Your task to perform on an android device: check storage Image 0: 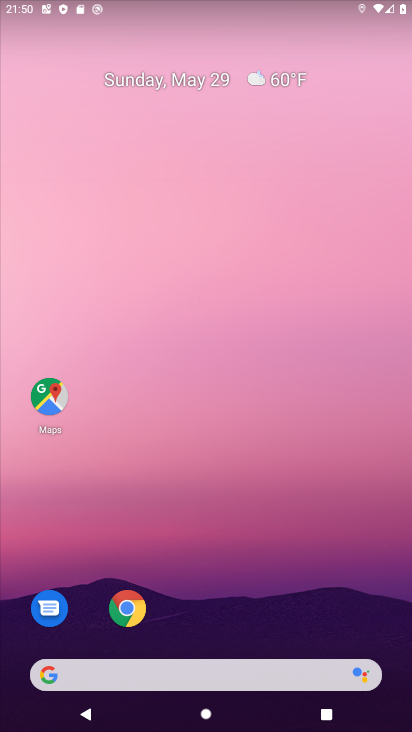
Step 0: drag from (359, 637) to (361, 118)
Your task to perform on an android device: check storage Image 1: 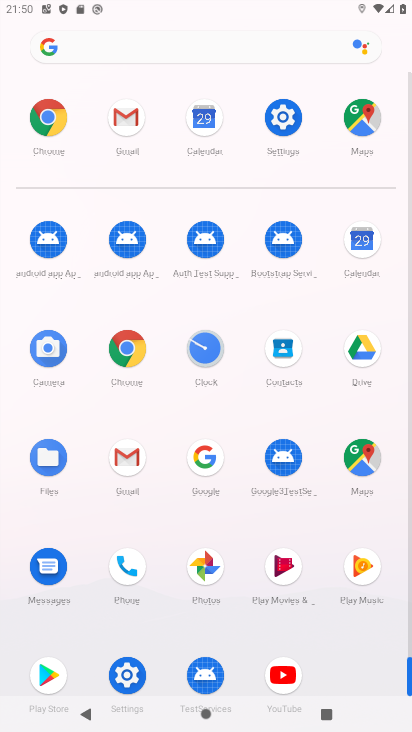
Step 1: click (278, 130)
Your task to perform on an android device: check storage Image 2: 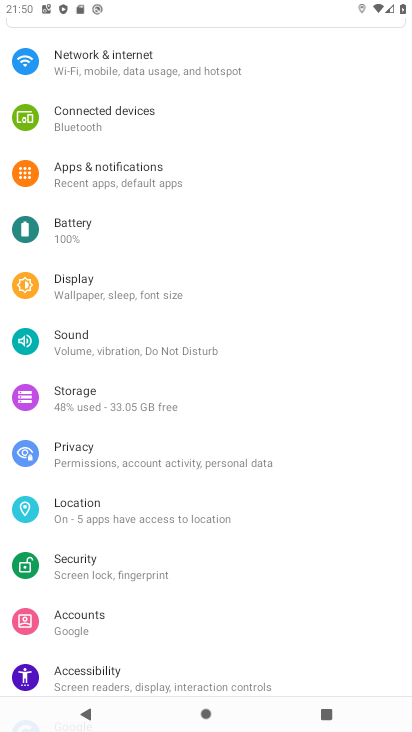
Step 2: drag from (318, 229) to (324, 340)
Your task to perform on an android device: check storage Image 3: 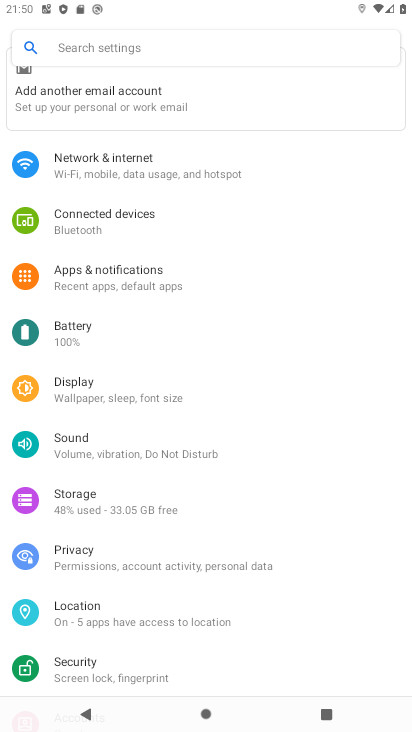
Step 3: drag from (310, 234) to (311, 287)
Your task to perform on an android device: check storage Image 4: 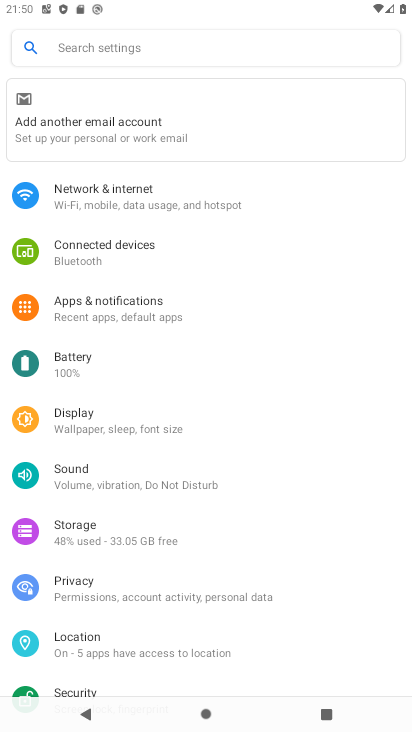
Step 4: drag from (313, 230) to (323, 409)
Your task to perform on an android device: check storage Image 5: 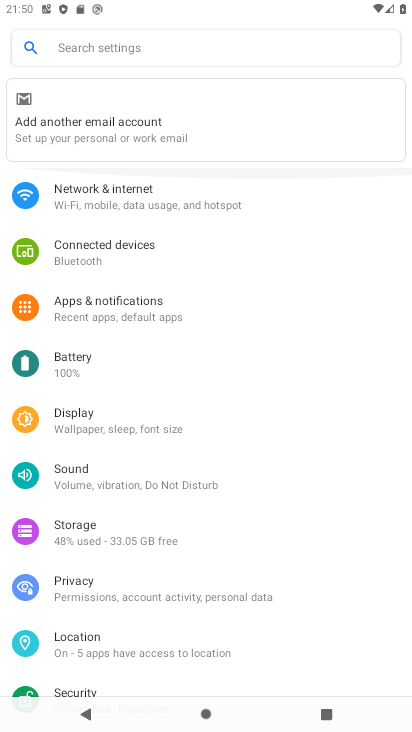
Step 5: drag from (367, 524) to (370, 441)
Your task to perform on an android device: check storage Image 6: 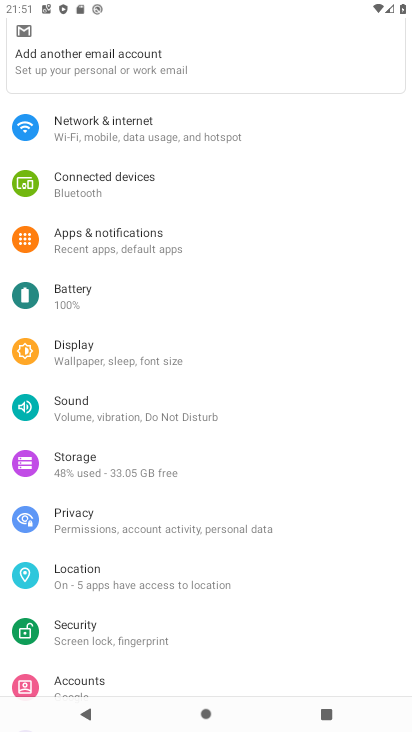
Step 6: drag from (324, 403) to (331, 285)
Your task to perform on an android device: check storage Image 7: 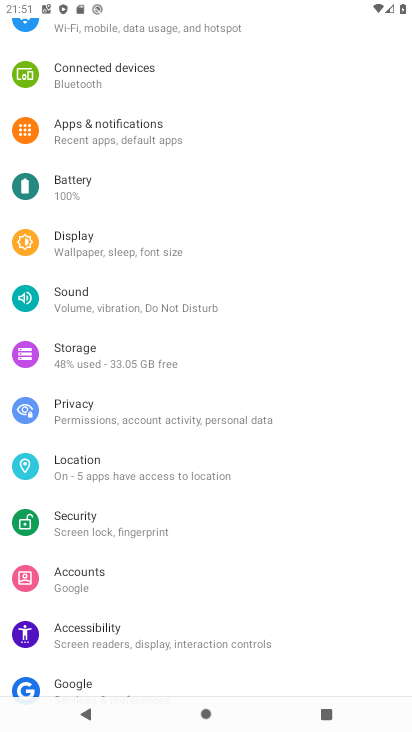
Step 7: drag from (330, 560) to (343, 424)
Your task to perform on an android device: check storage Image 8: 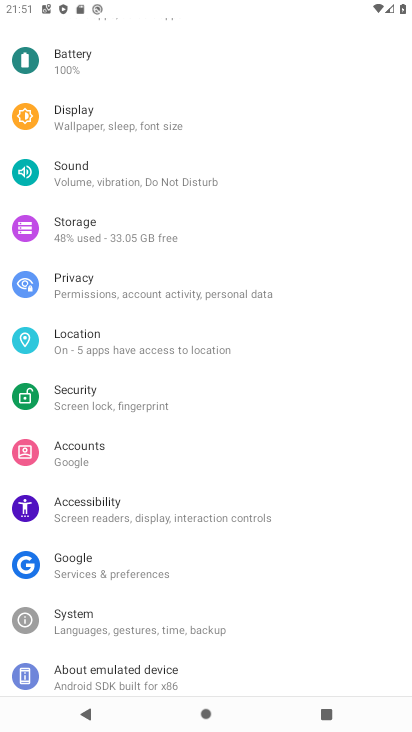
Step 8: drag from (325, 539) to (329, 410)
Your task to perform on an android device: check storage Image 9: 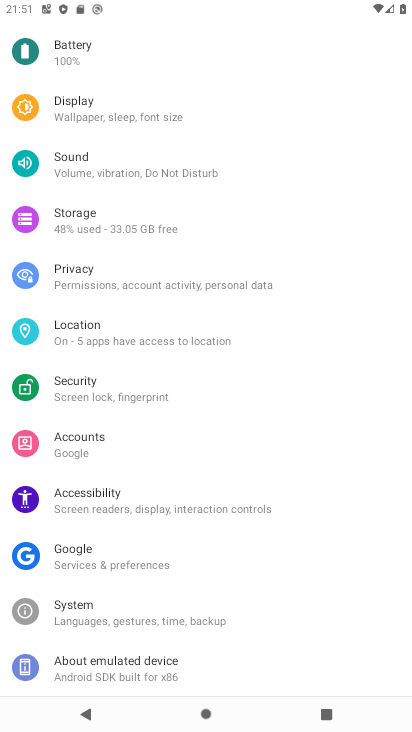
Step 9: drag from (323, 272) to (326, 388)
Your task to perform on an android device: check storage Image 10: 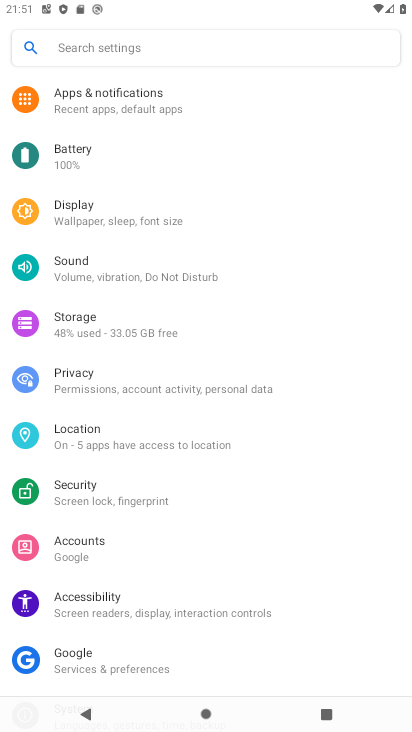
Step 10: drag from (328, 275) to (332, 367)
Your task to perform on an android device: check storage Image 11: 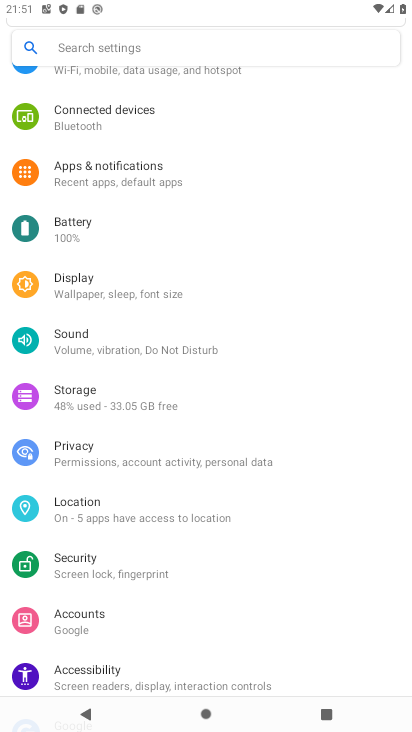
Step 11: click (154, 411)
Your task to perform on an android device: check storage Image 12: 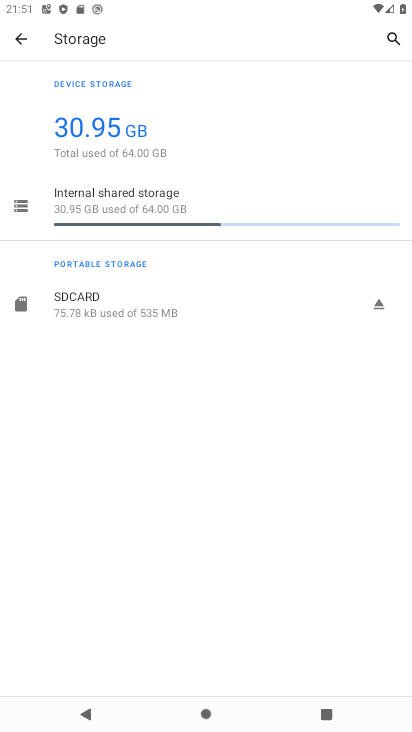
Step 12: task complete